Your task to perform on an android device: open app "LinkedIn" Image 0: 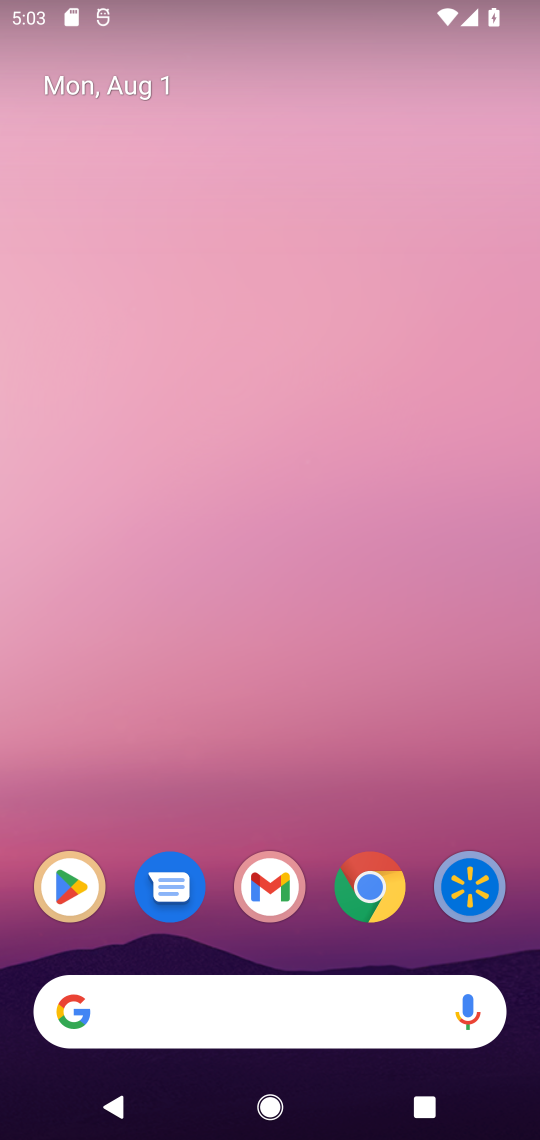
Step 0: drag from (359, 1005) to (299, 470)
Your task to perform on an android device: open app "LinkedIn" Image 1: 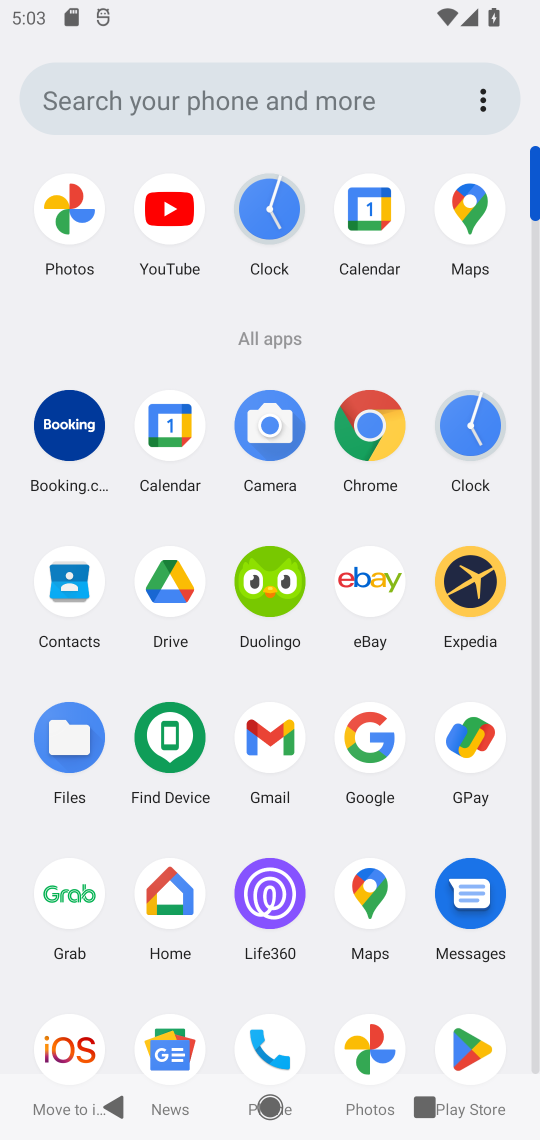
Step 1: click (459, 1029)
Your task to perform on an android device: open app "LinkedIn" Image 2: 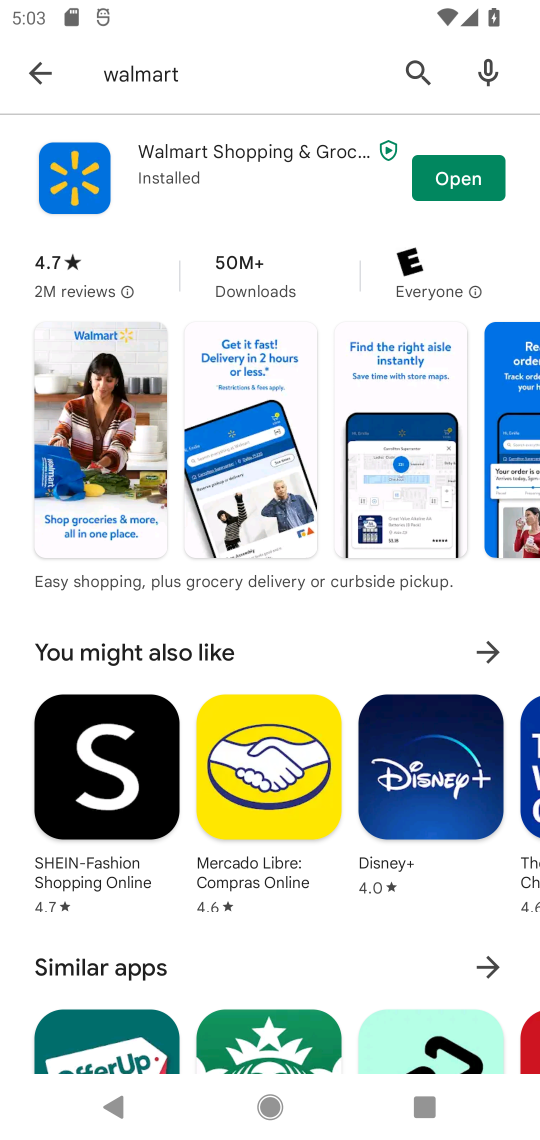
Step 2: click (29, 89)
Your task to perform on an android device: open app "LinkedIn" Image 3: 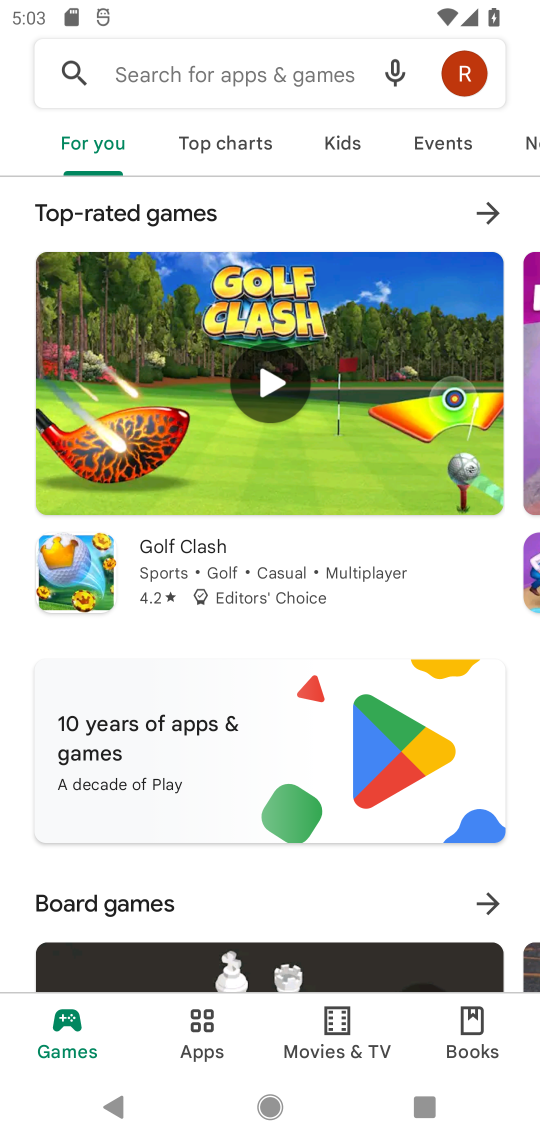
Step 3: click (240, 63)
Your task to perform on an android device: open app "LinkedIn" Image 4: 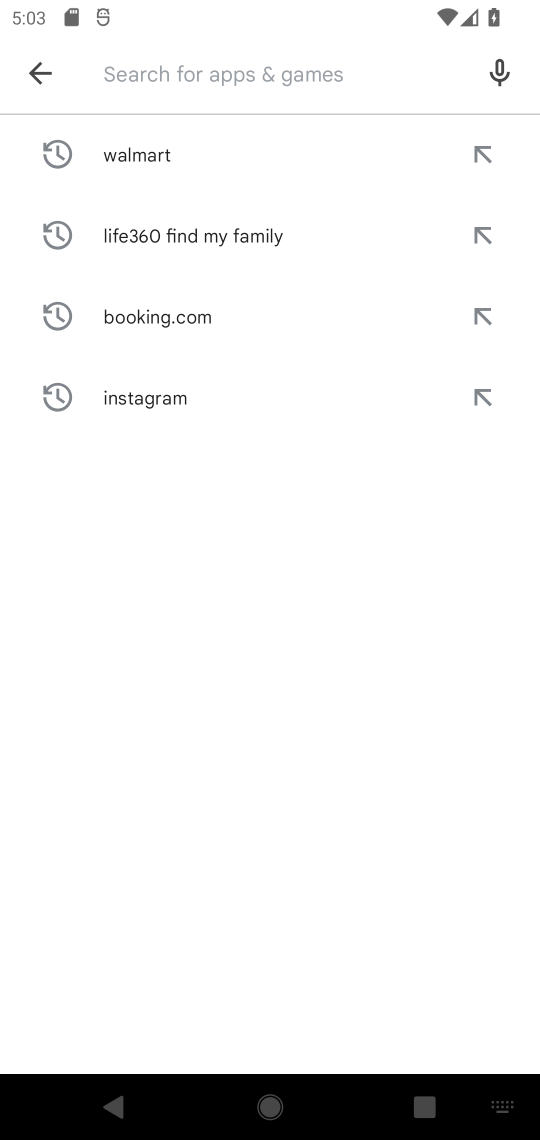
Step 4: type "LinkedIn"
Your task to perform on an android device: open app "LinkedIn" Image 5: 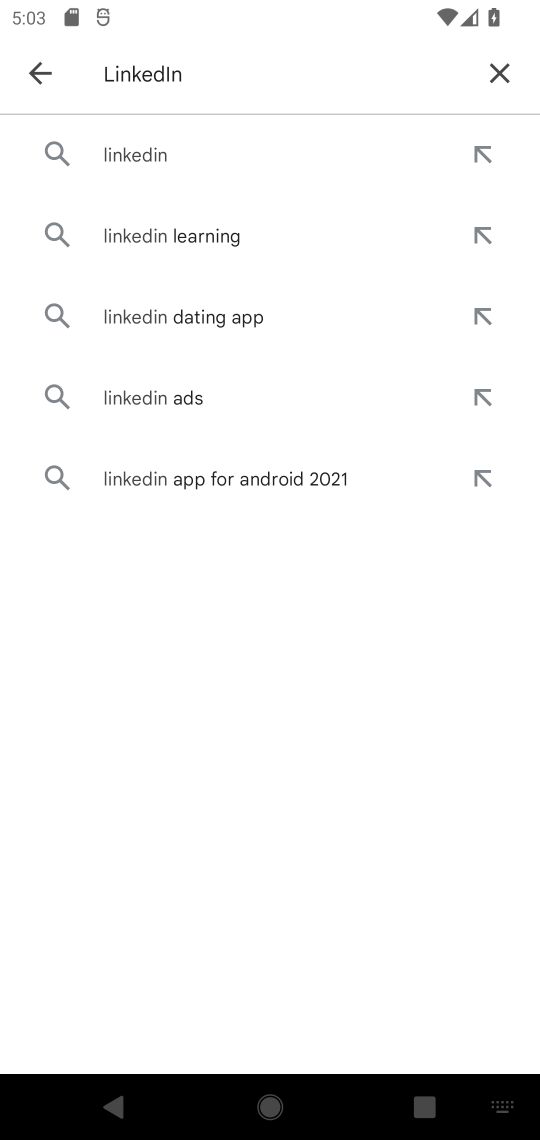
Step 5: click (149, 138)
Your task to perform on an android device: open app "LinkedIn" Image 6: 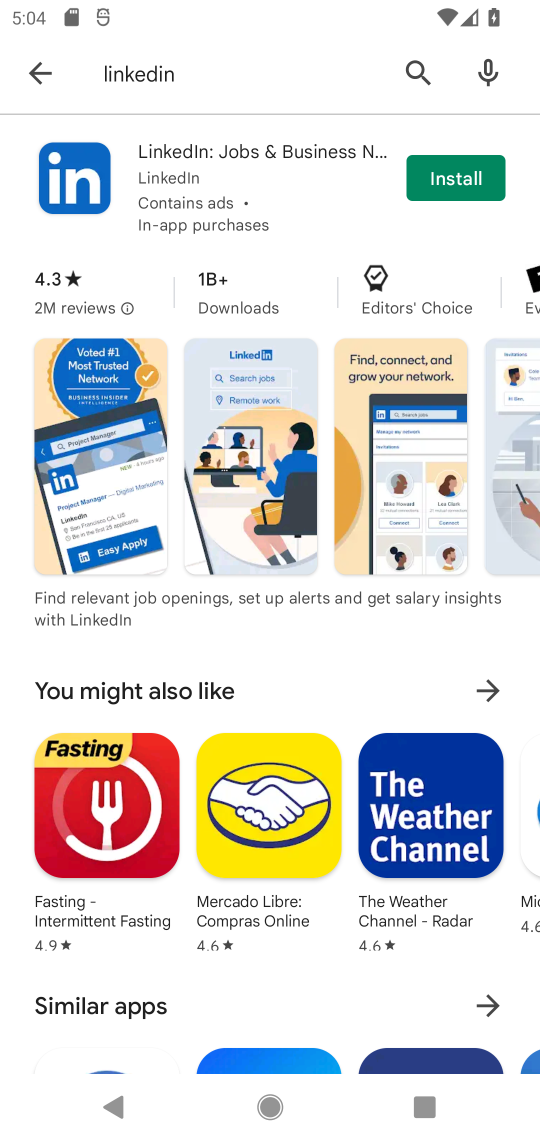
Step 6: task complete